Your task to perform on an android device: Open display settings Image 0: 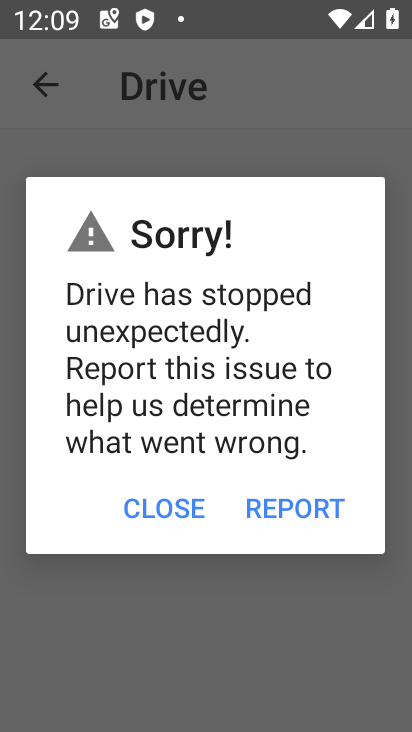
Step 0: press home button
Your task to perform on an android device: Open display settings Image 1: 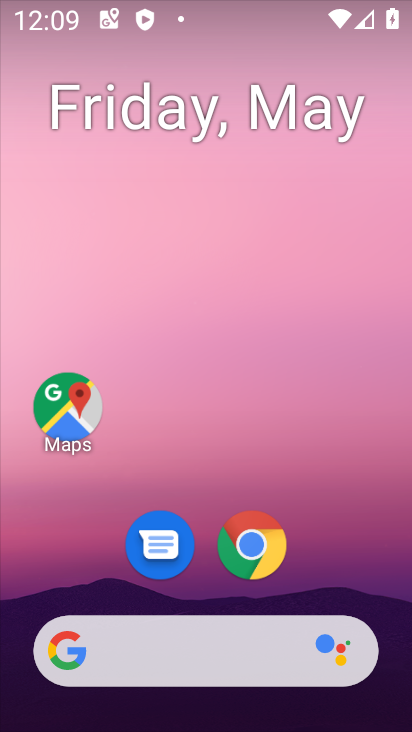
Step 1: drag from (341, 553) to (330, 233)
Your task to perform on an android device: Open display settings Image 2: 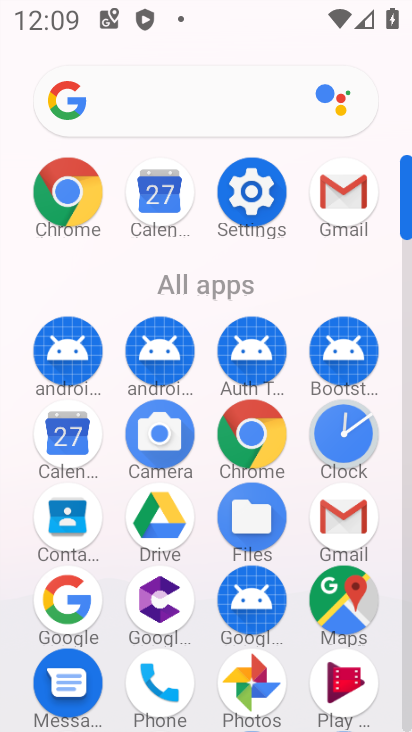
Step 2: click (256, 174)
Your task to perform on an android device: Open display settings Image 3: 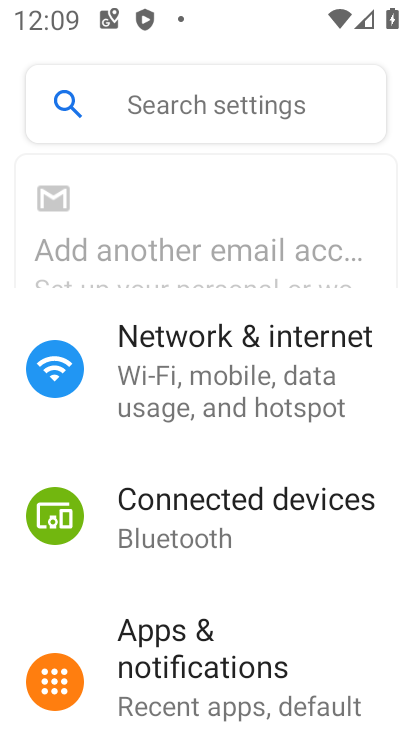
Step 3: drag from (272, 607) to (275, 161)
Your task to perform on an android device: Open display settings Image 4: 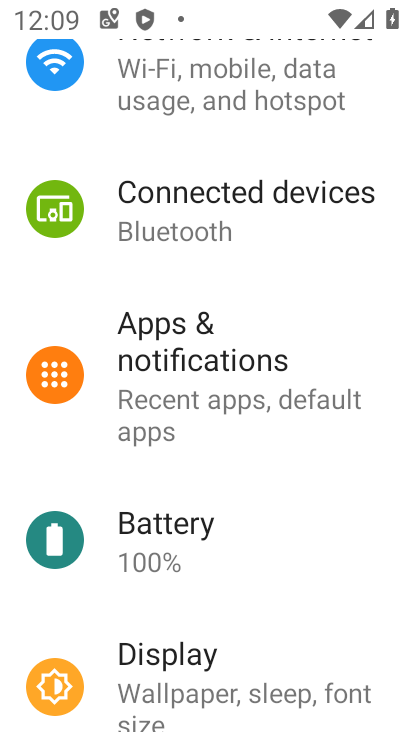
Step 4: click (187, 667)
Your task to perform on an android device: Open display settings Image 5: 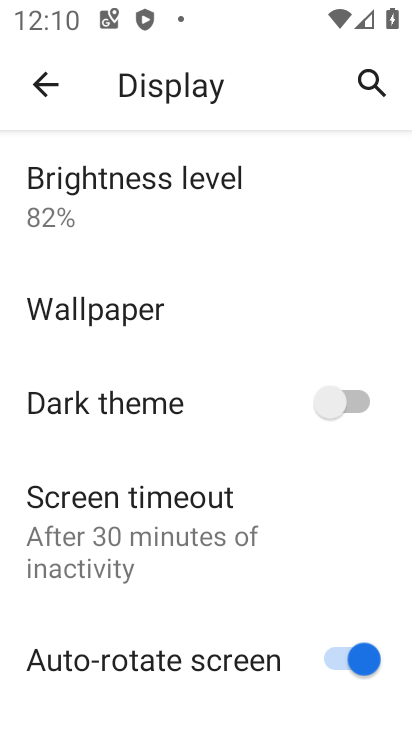
Step 5: task complete